Your task to perform on an android device: open wifi settings Image 0: 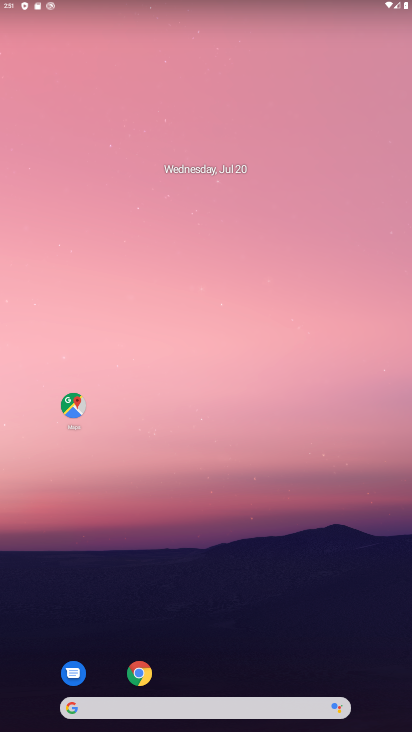
Step 0: drag from (204, 545) to (295, 73)
Your task to perform on an android device: open wifi settings Image 1: 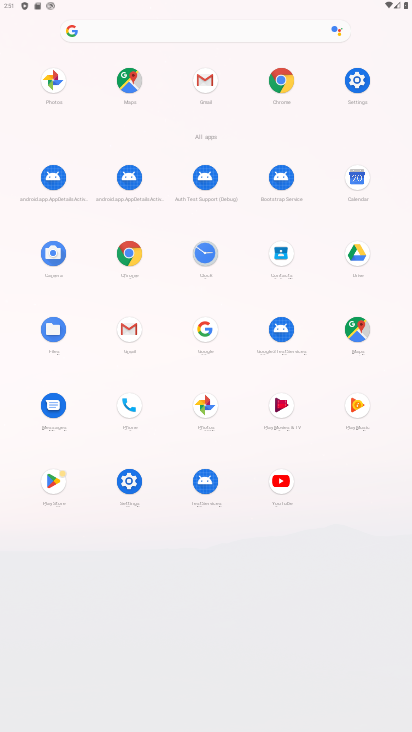
Step 1: click (138, 479)
Your task to perform on an android device: open wifi settings Image 2: 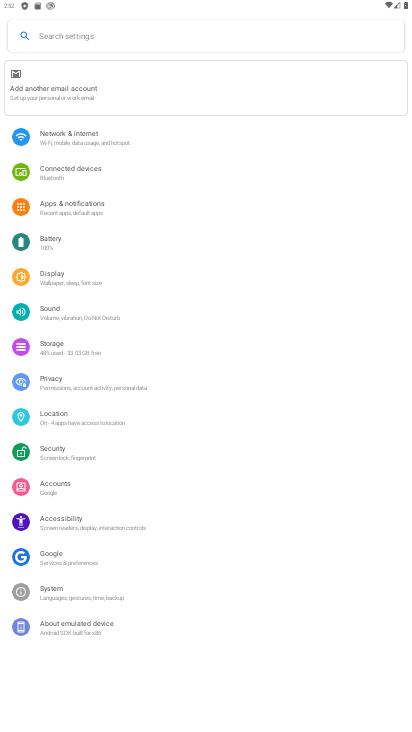
Step 2: task complete